Your task to perform on an android device: How big is the moon? Image 0: 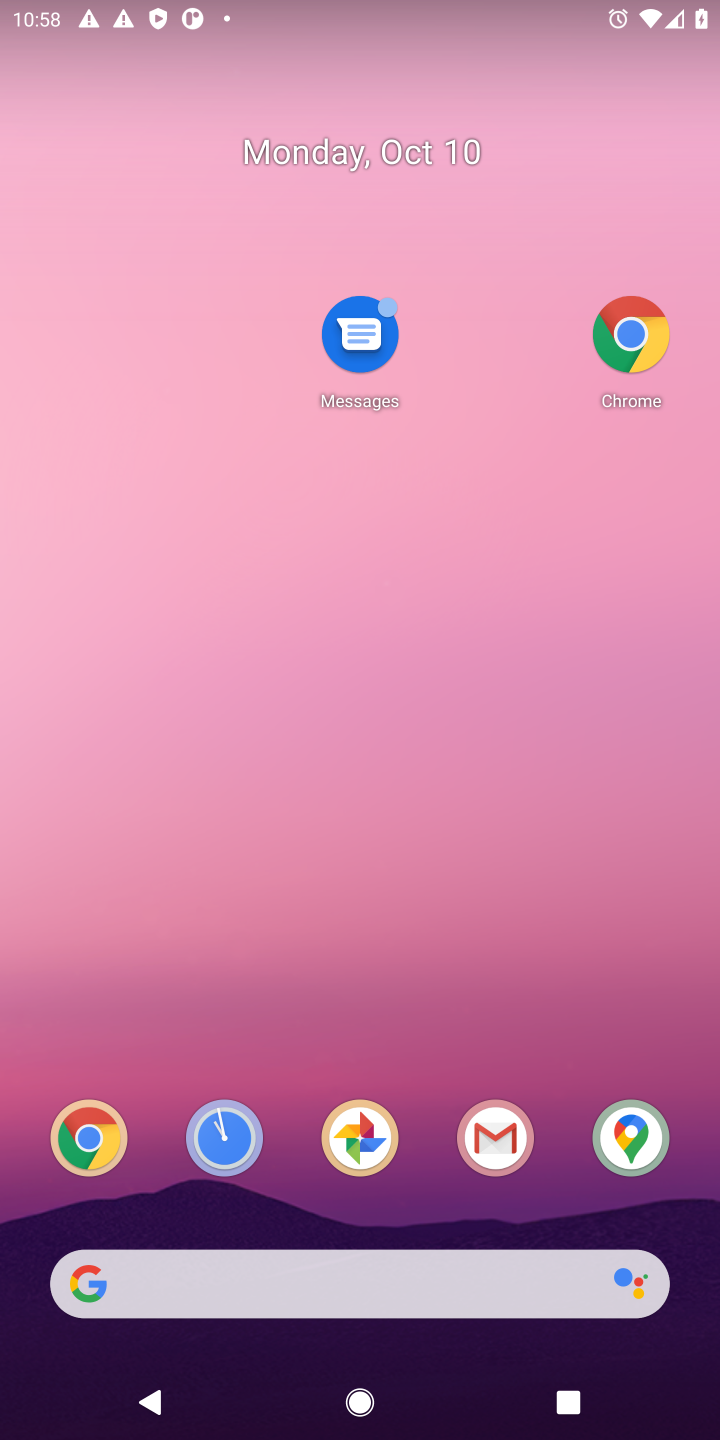
Step 0: click (645, 341)
Your task to perform on an android device: How big is the moon? Image 1: 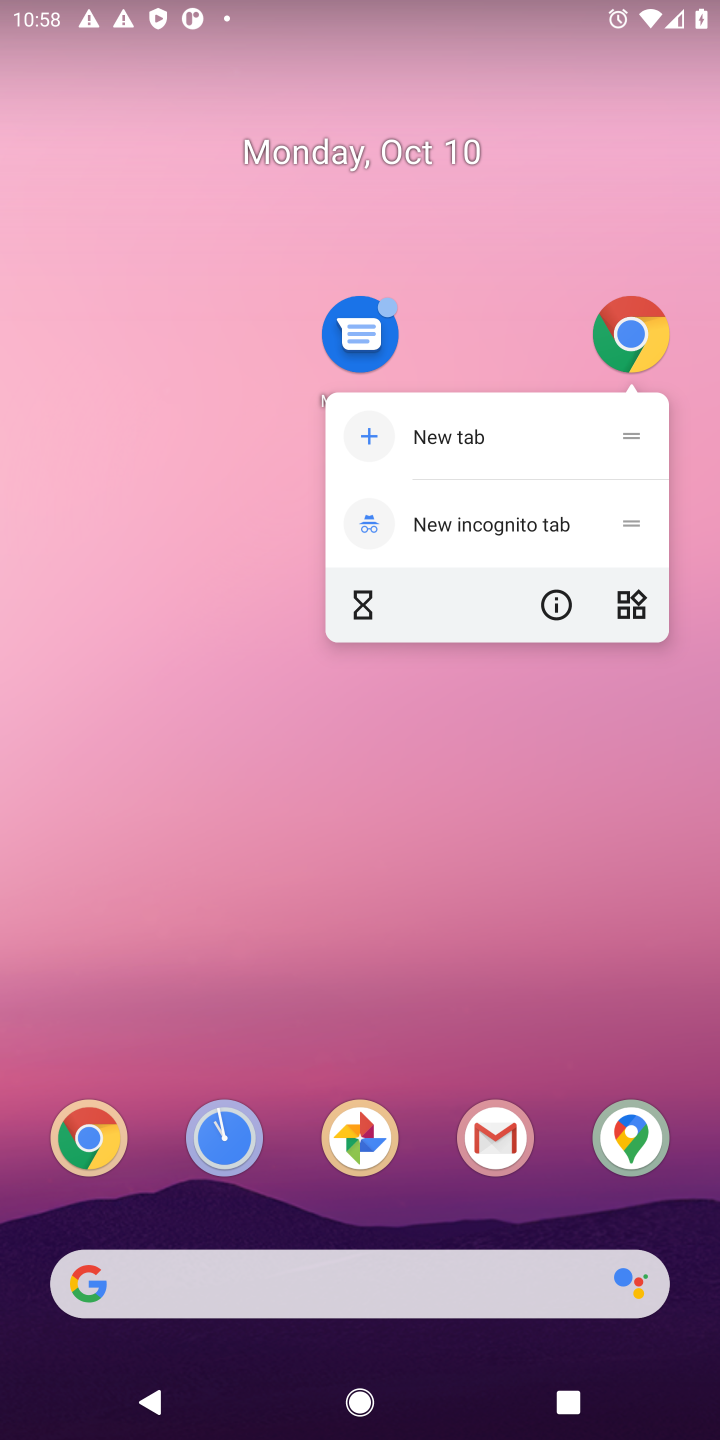
Step 1: click (620, 334)
Your task to perform on an android device: How big is the moon? Image 2: 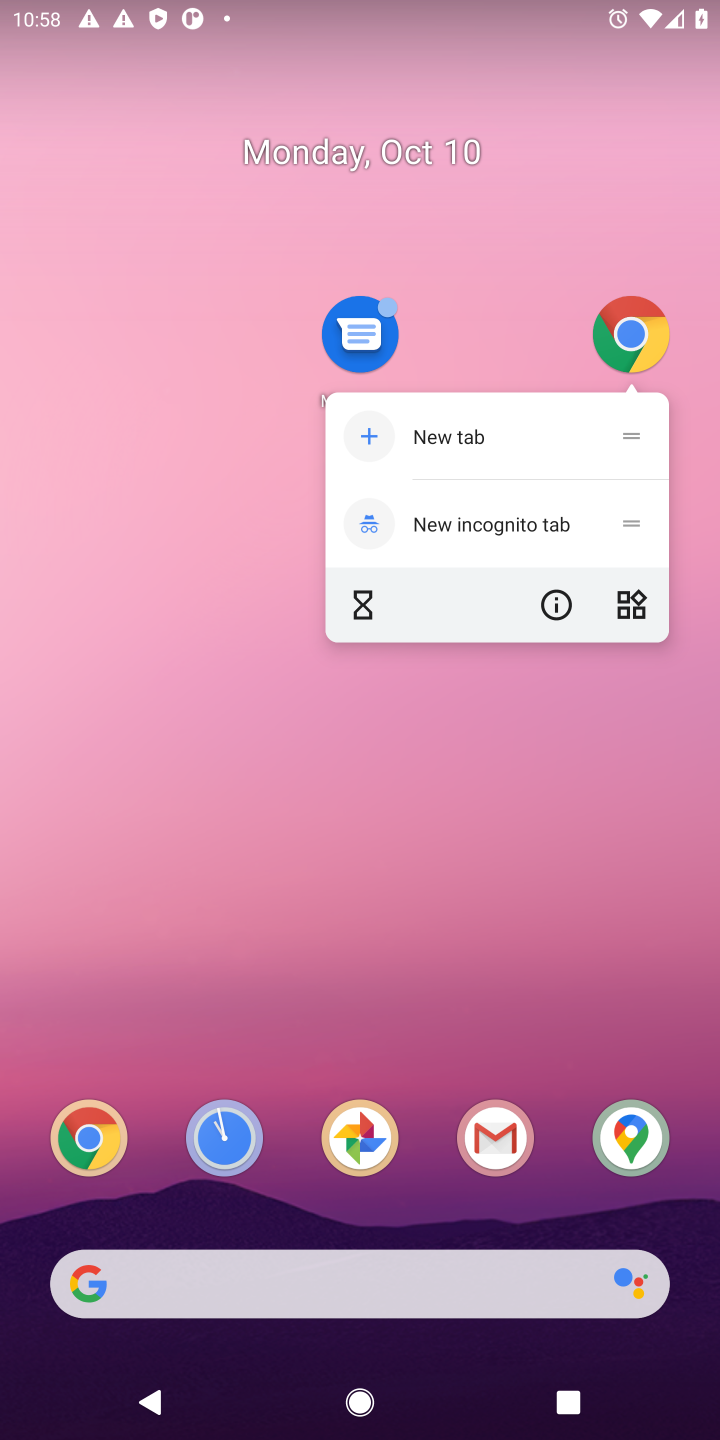
Step 2: click (631, 337)
Your task to perform on an android device: How big is the moon? Image 3: 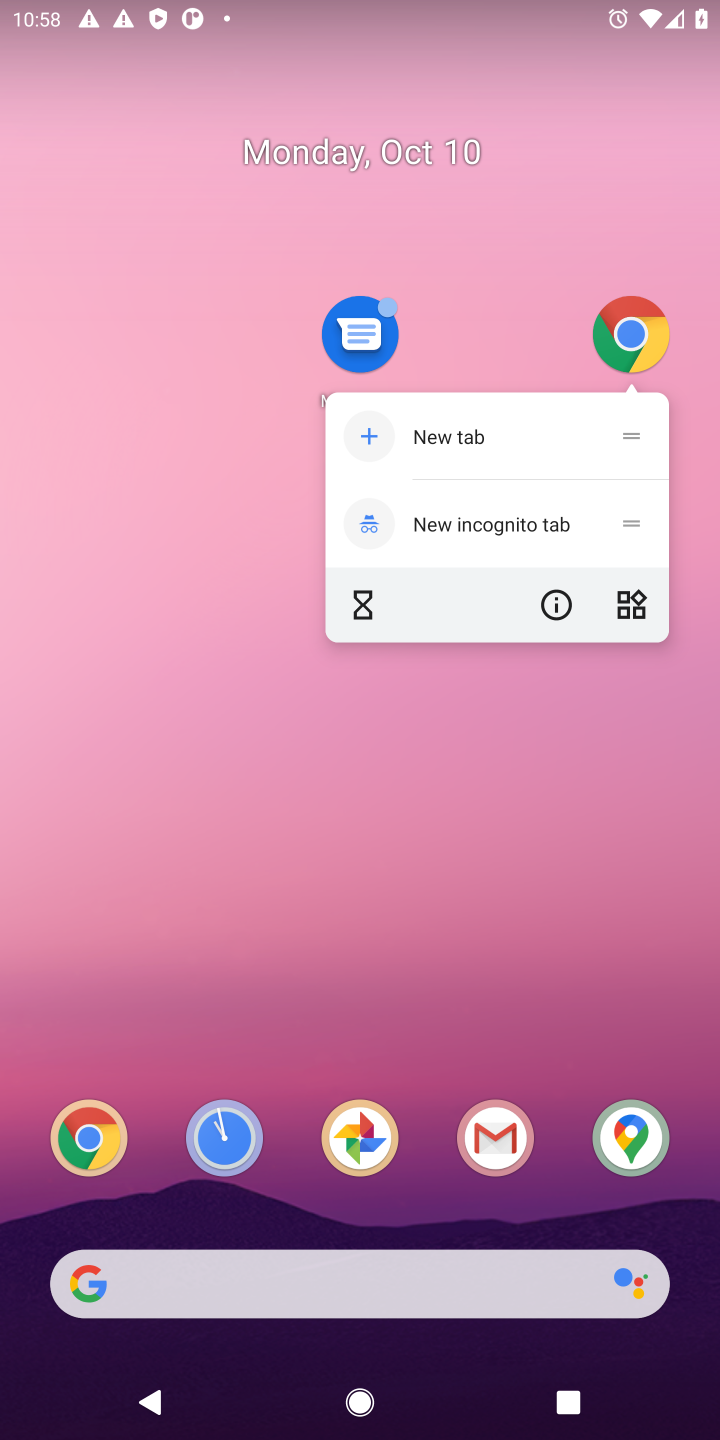
Step 3: click (629, 323)
Your task to perform on an android device: How big is the moon? Image 4: 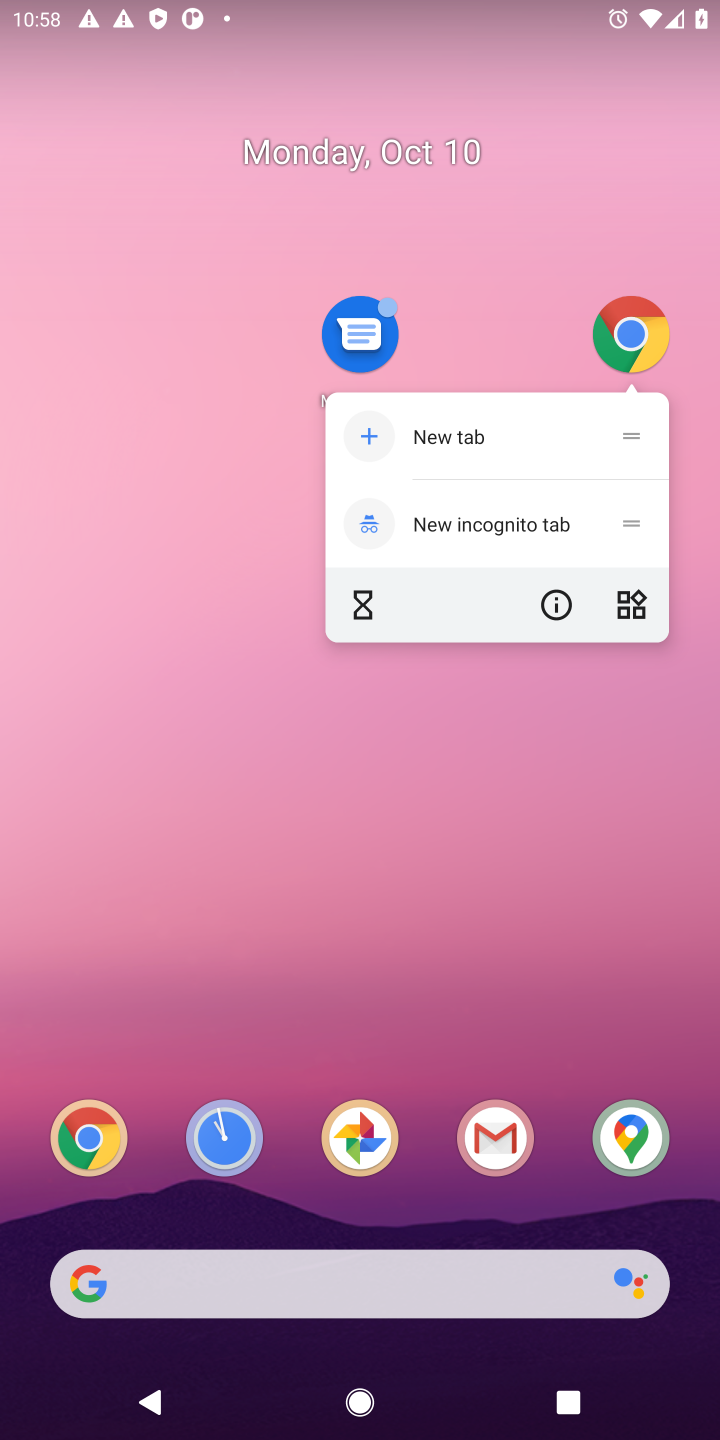
Step 4: drag from (377, 1267) to (513, 36)
Your task to perform on an android device: How big is the moon? Image 5: 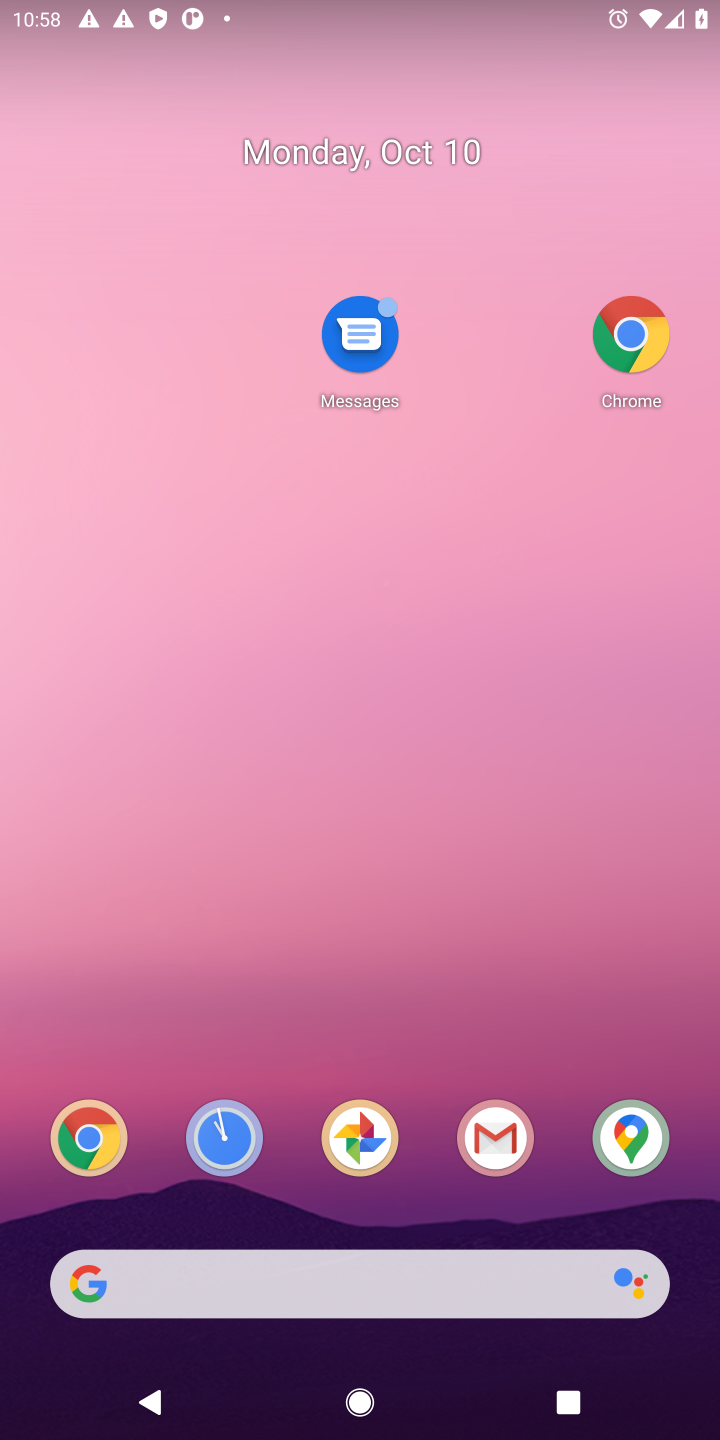
Step 5: drag from (14, 853) to (86, 187)
Your task to perform on an android device: How big is the moon? Image 6: 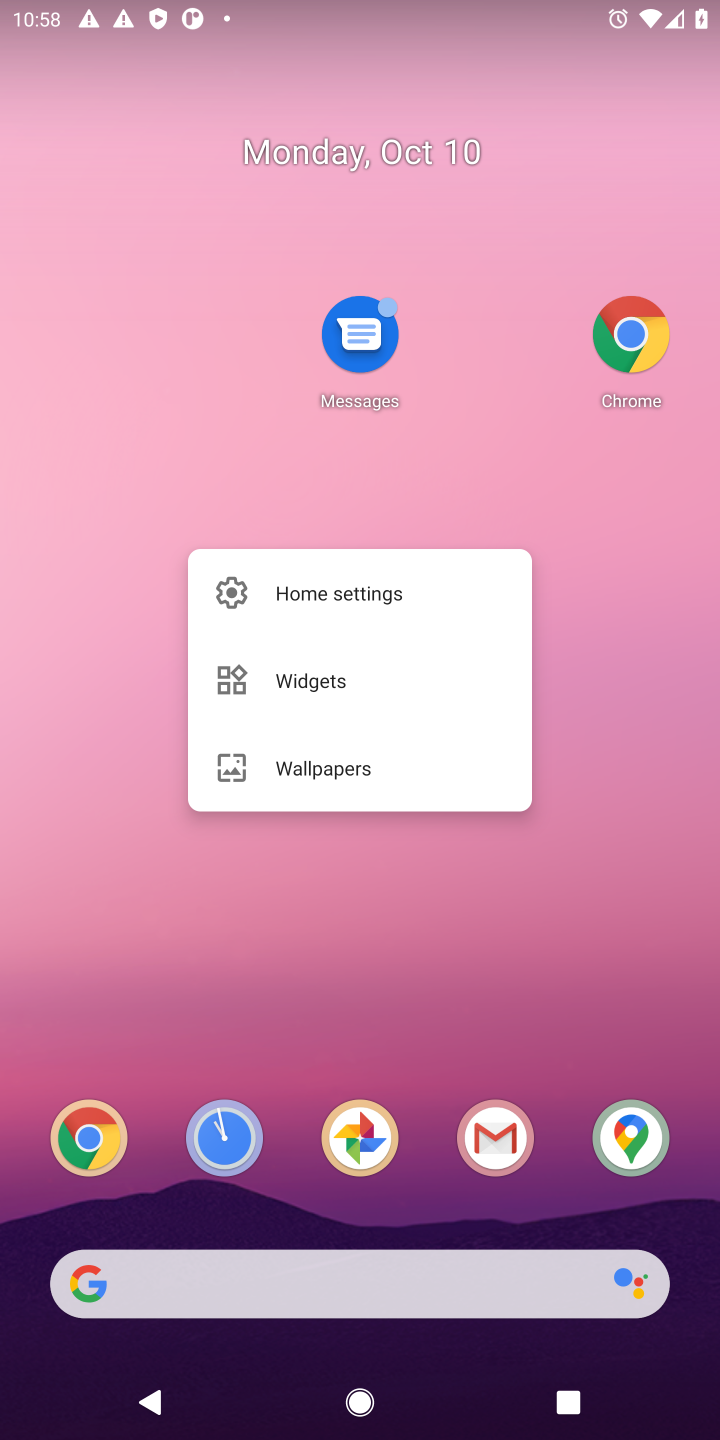
Step 6: click (305, 224)
Your task to perform on an android device: How big is the moon? Image 7: 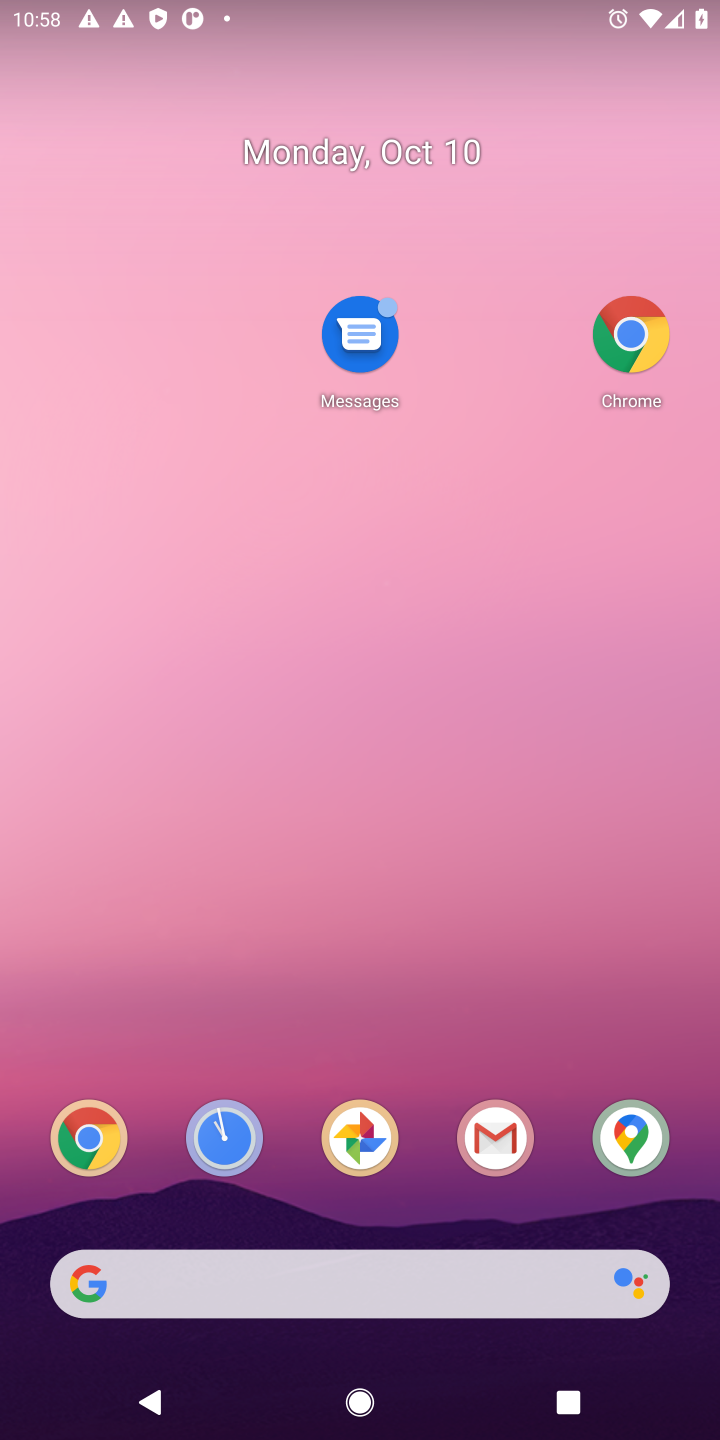
Step 7: drag from (704, 1272) to (666, 145)
Your task to perform on an android device: How big is the moon? Image 8: 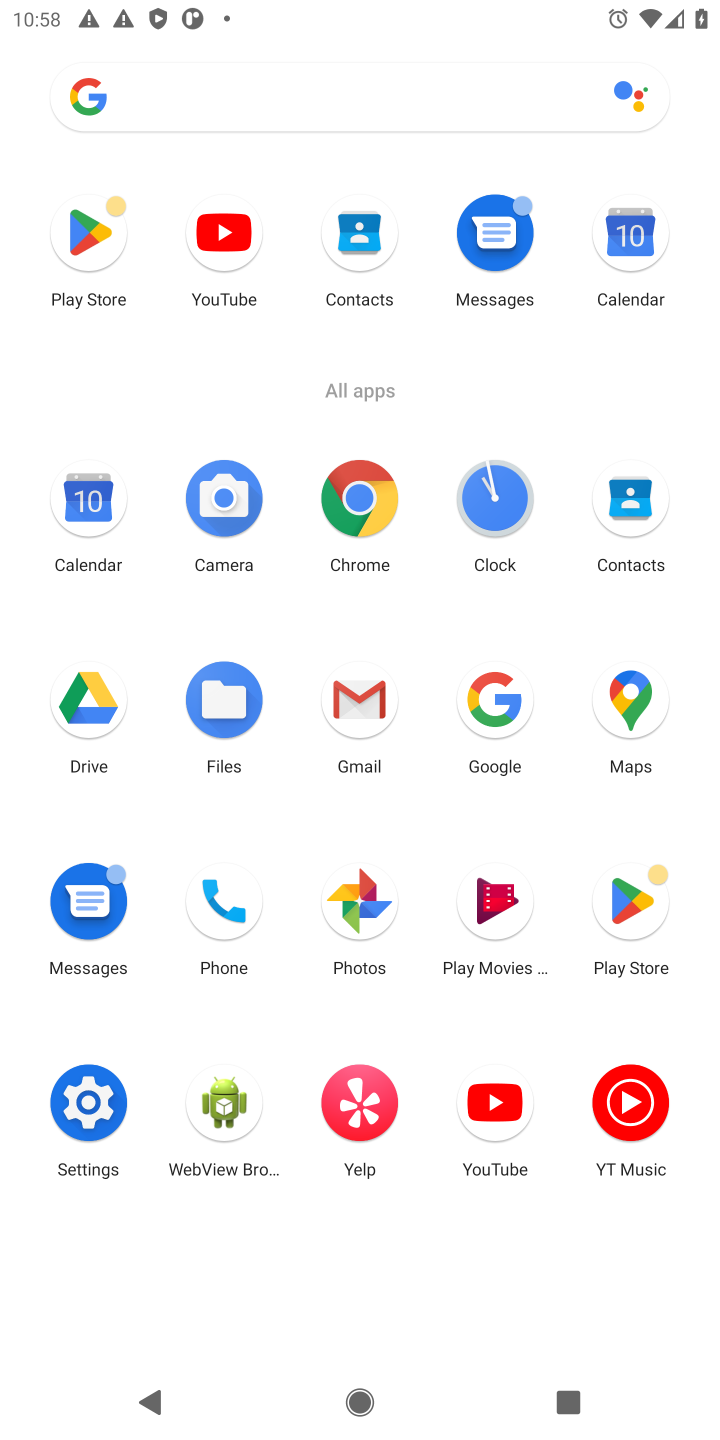
Step 8: click (363, 512)
Your task to perform on an android device: How big is the moon? Image 9: 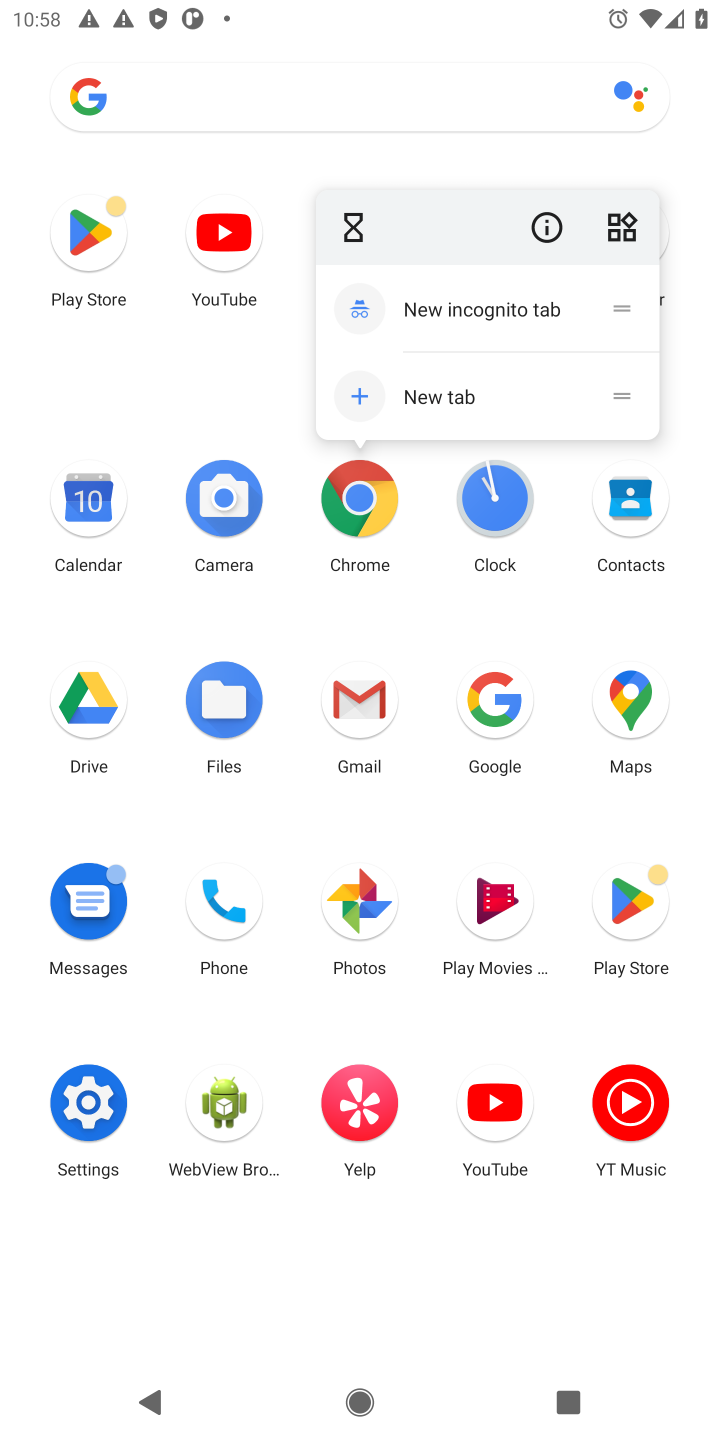
Step 9: click (357, 501)
Your task to perform on an android device: How big is the moon? Image 10: 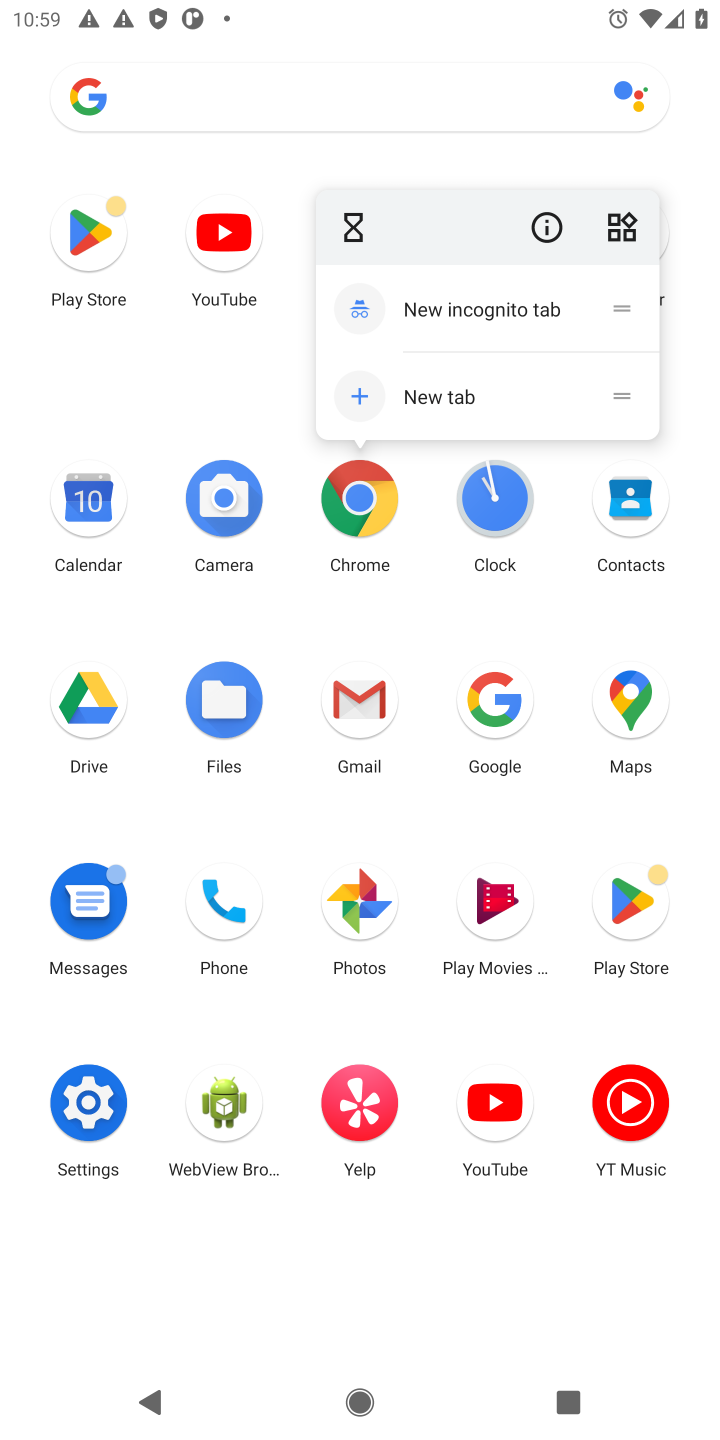
Step 10: click (361, 512)
Your task to perform on an android device: How big is the moon? Image 11: 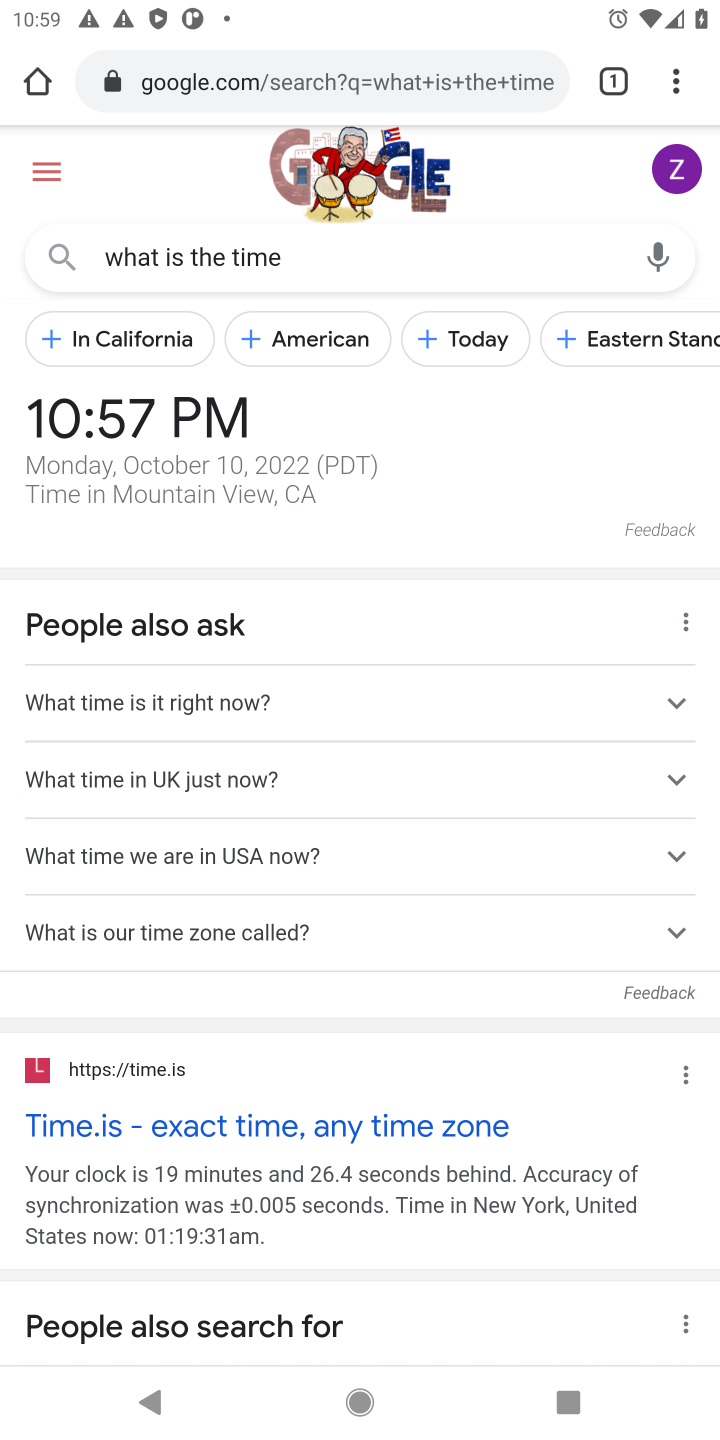
Step 11: click (351, 74)
Your task to perform on an android device: How big is the moon? Image 12: 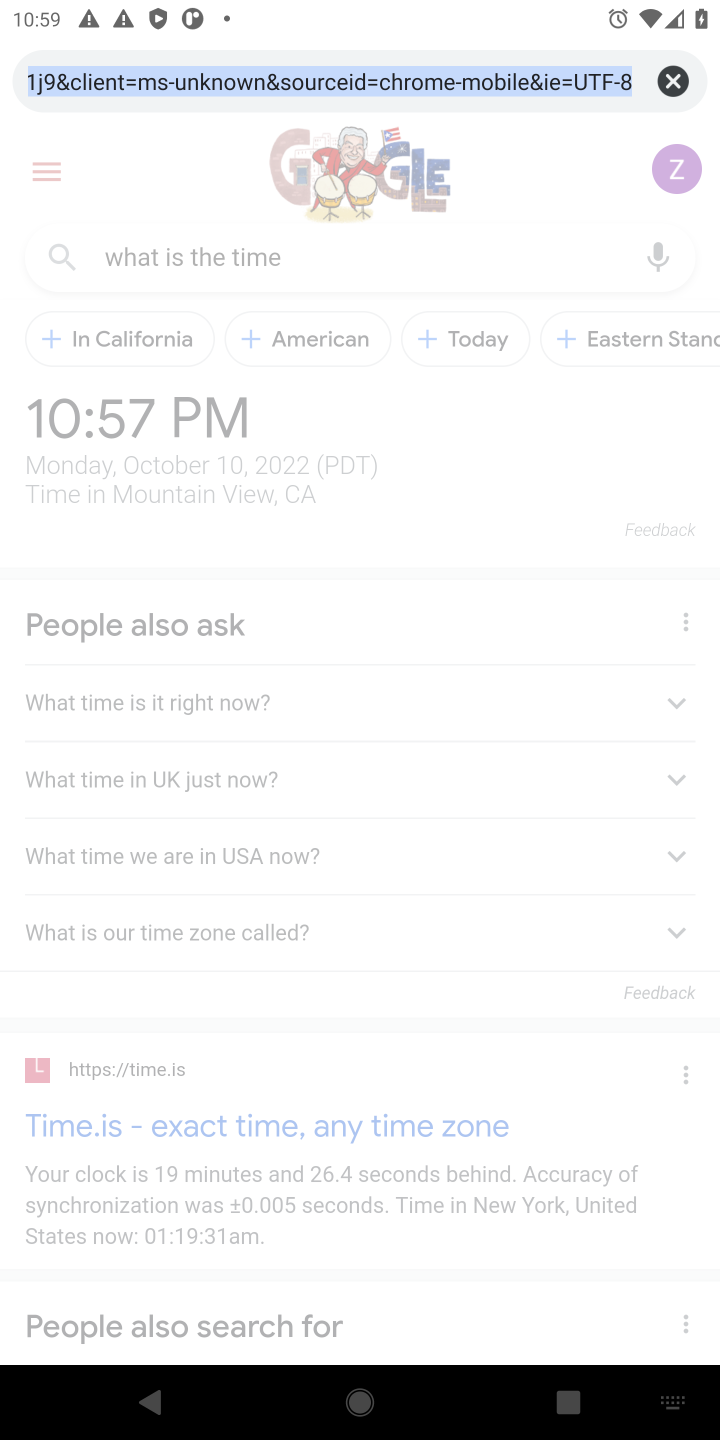
Step 12: type "how big is the moon"
Your task to perform on an android device: How big is the moon? Image 13: 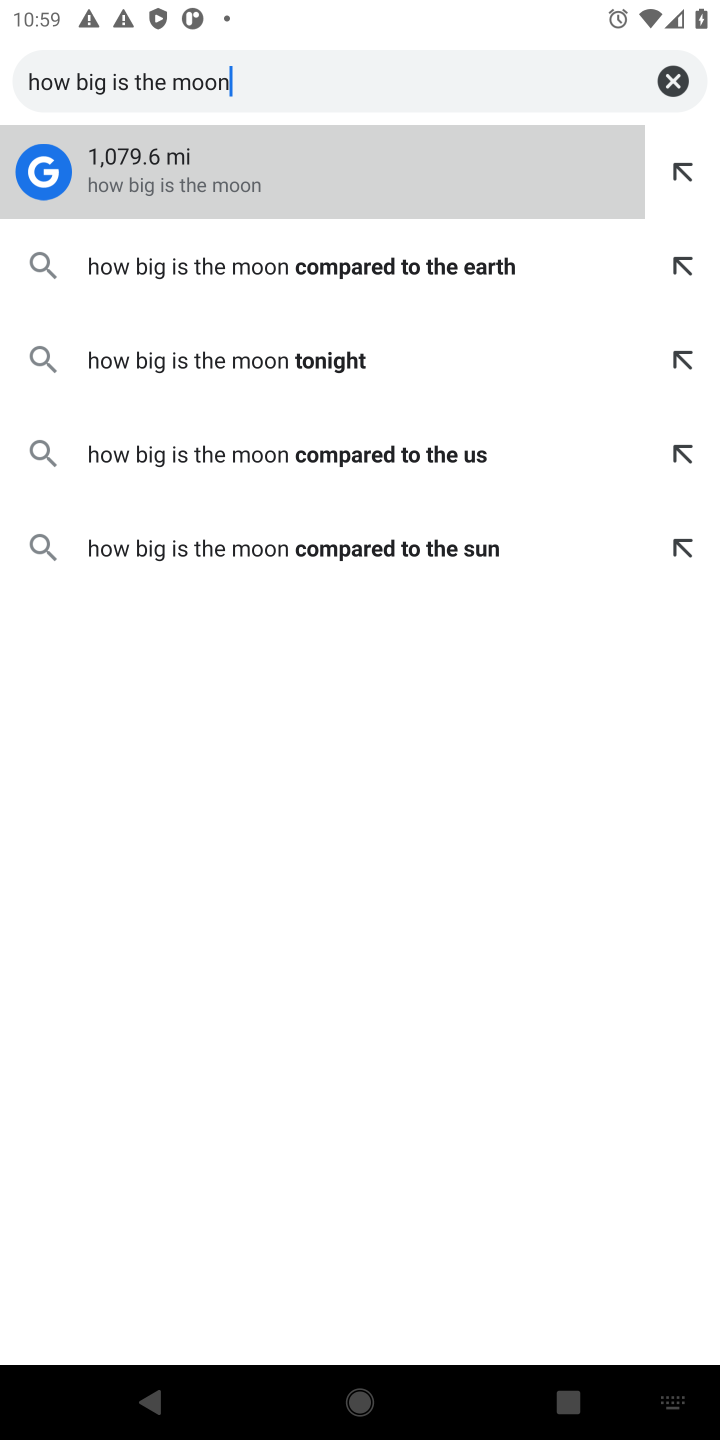
Step 13: press enter
Your task to perform on an android device: How big is the moon? Image 14: 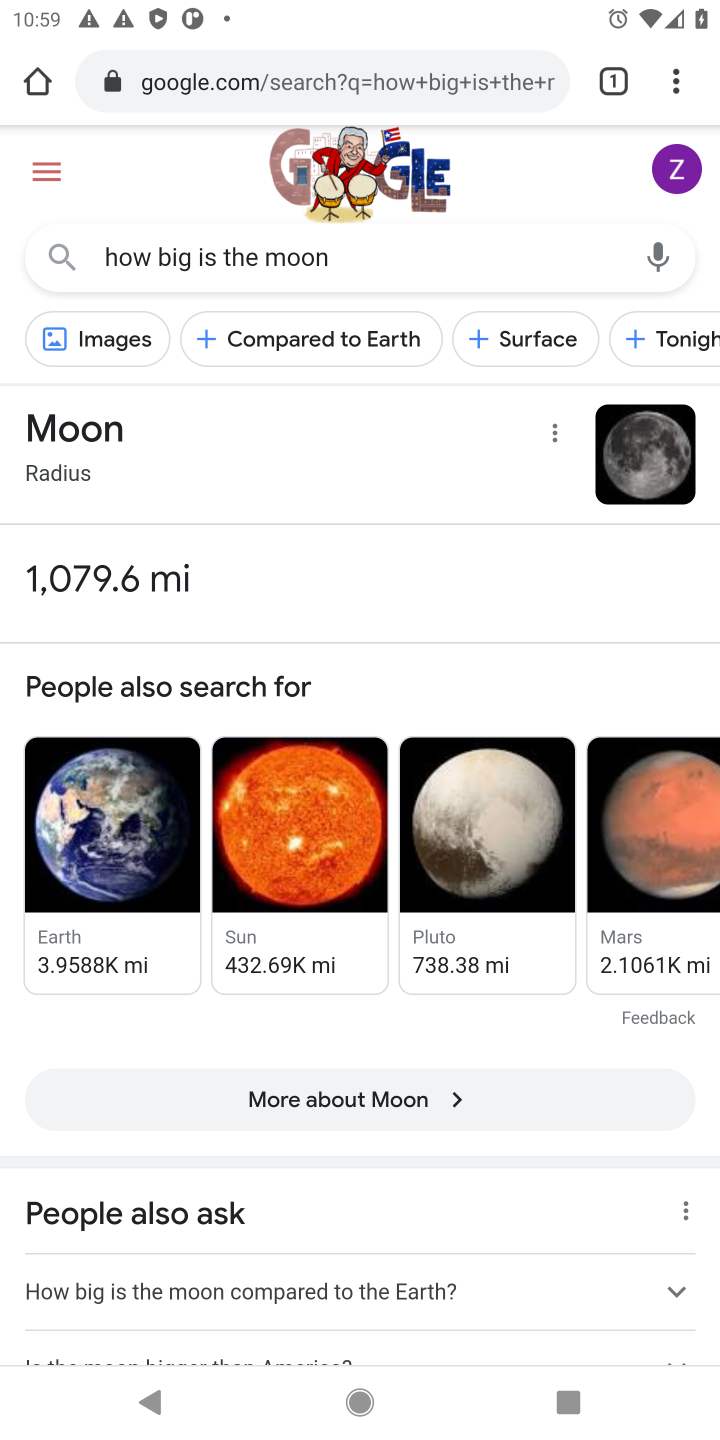
Step 14: task complete